Your task to perform on an android device: turn on wifi Image 0: 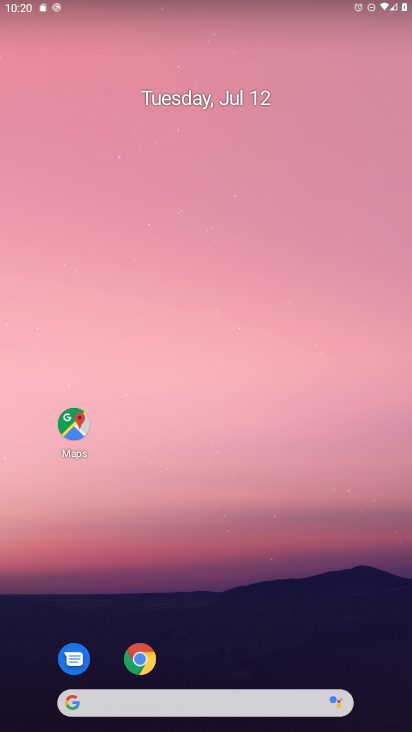
Step 0: drag from (237, 694) to (266, 49)
Your task to perform on an android device: turn on wifi Image 1: 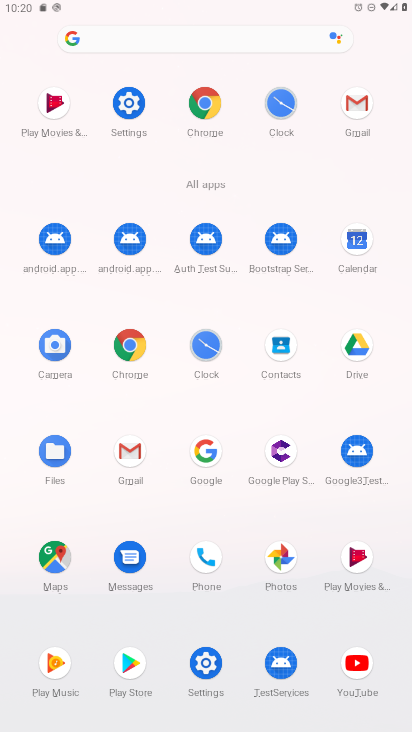
Step 1: click (118, 115)
Your task to perform on an android device: turn on wifi Image 2: 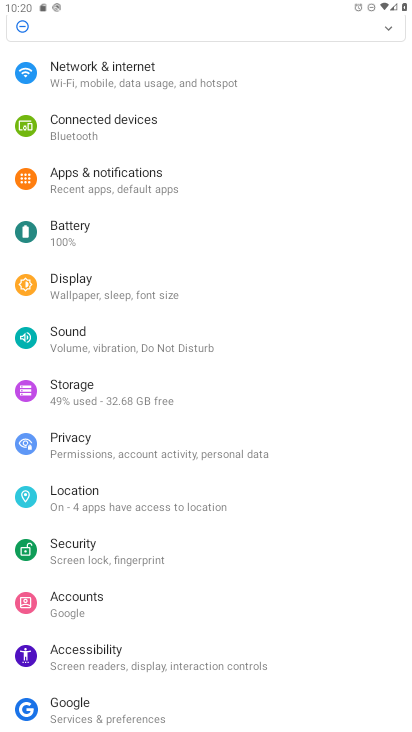
Step 2: click (95, 83)
Your task to perform on an android device: turn on wifi Image 3: 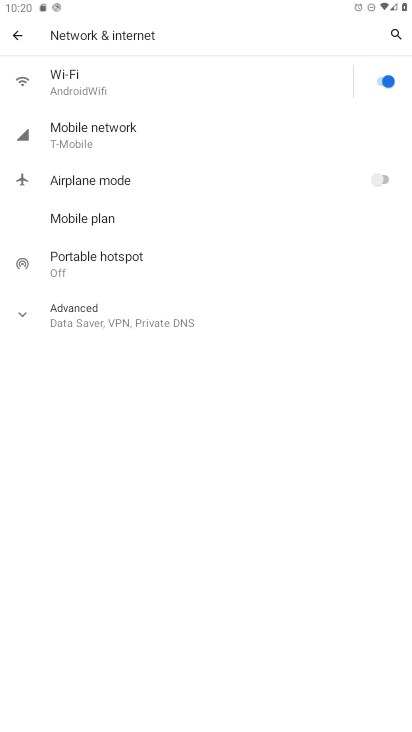
Step 3: task complete